Your task to perform on an android device: turn off priority inbox in the gmail app Image 0: 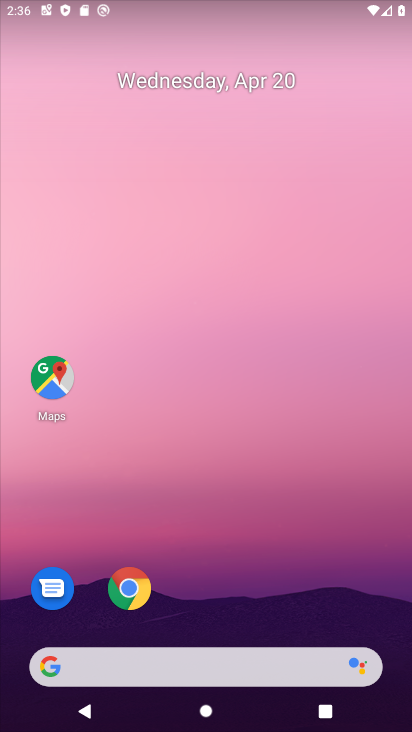
Step 0: drag from (242, 463) to (235, 70)
Your task to perform on an android device: turn off priority inbox in the gmail app Image 1: 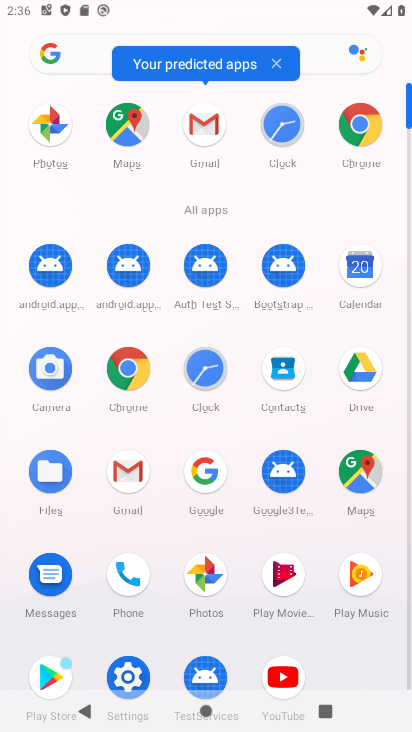
Step 1: click (202, 123)
Your task to perform on an android device: turn off priority inbox in the gmail app Image 2: 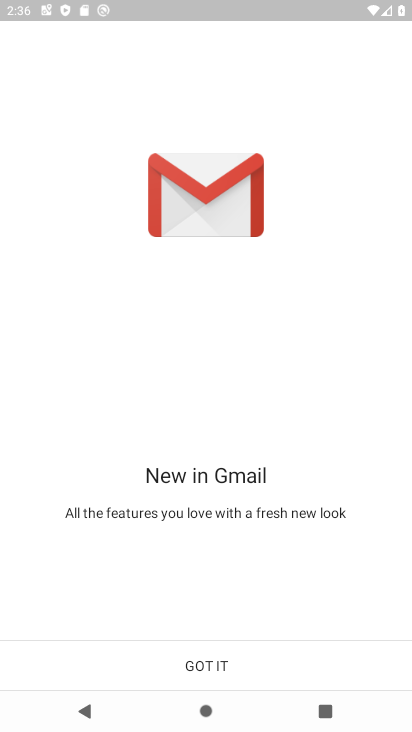
Step 2: click (216, 667)
Your task to perform on an android device: turn off priority inbox in the gmail app Image 3: 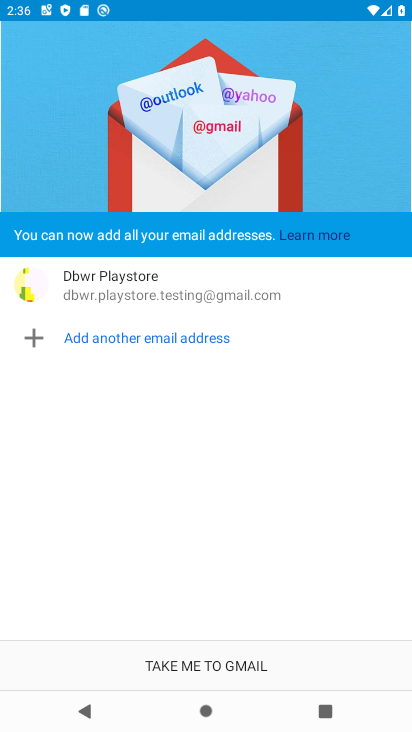
Step 3: click (216, 667)
Your task to perform on an android device: turn off priority inbox in the gmail app Image 4: 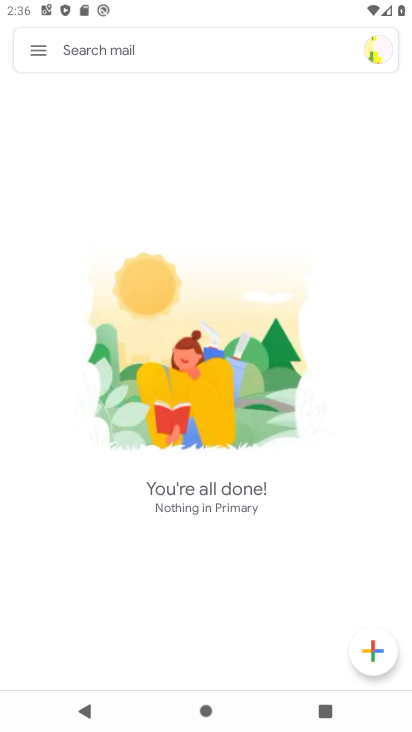
Step 4: click (32, 47)
Your task to perform on an android device: turn off priority inbox in the gmail app Image 5: 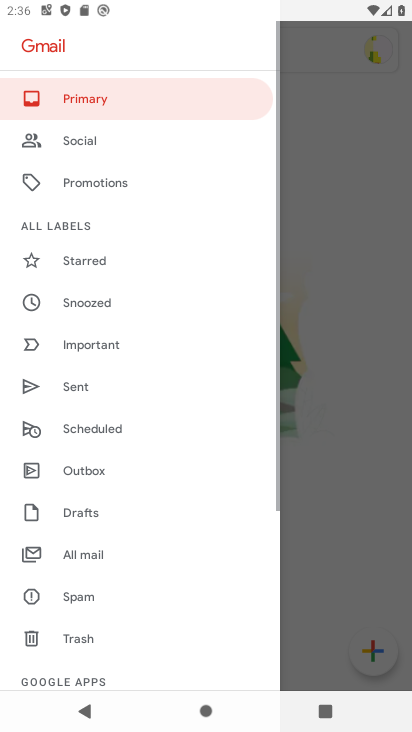
Step 5: drag from (89, 562) to (102, 280)
Your task to perform on an android device: turn off priority inbox in the gmail app Image 6: 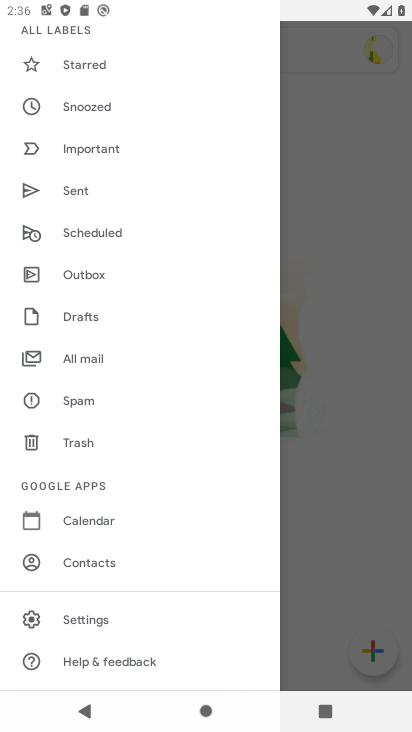
Step 6: click (88, 615)
Your task to perform on an android device: turn off priority inbox in the gmail app Image 7: 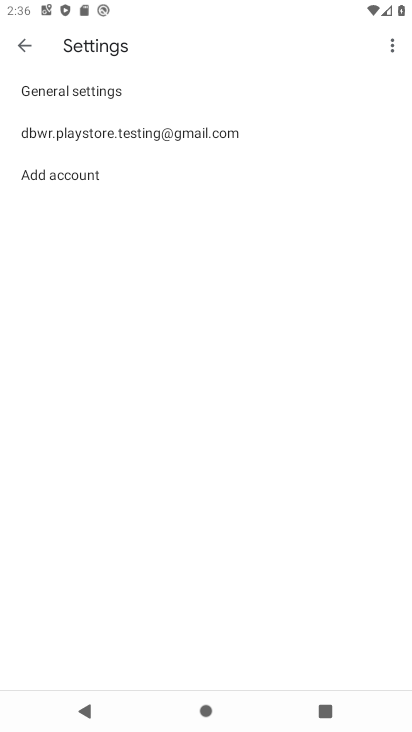
Step 7: click (65, 130)
Your task to perform on an android device: turn off priority inbox in the gmail app Image 8: 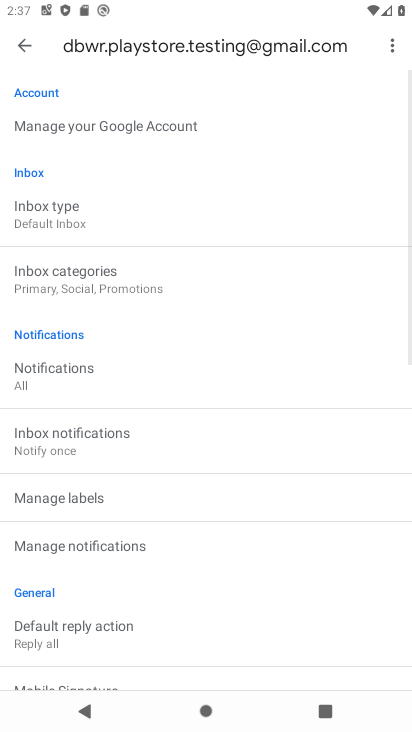
Step 8: drag from (150, 585) to (115, 254)
Your task to perform on an android device: turn off priority inbox in the gmail app Image 9: 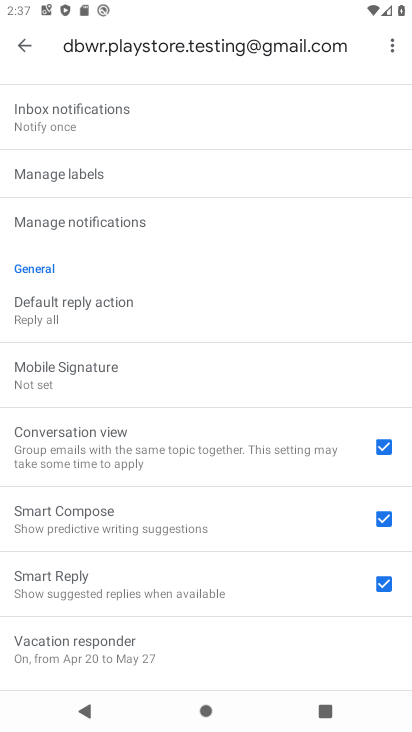
Step 9: drag from (125, 203) to (171, 598)
Your task to perform on an android device: turn off priority inbox in the gmail app Image 10: 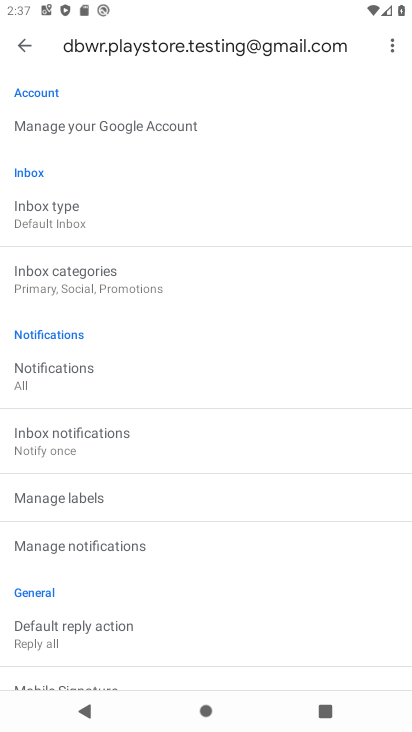
Step 10: click (75, 223)
Your task to perform on an android device: turn off priority inbox in the gmail app Image 11: 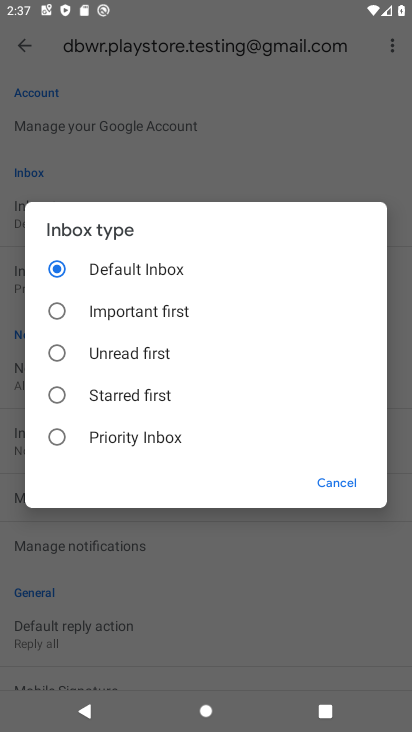
Step 11: task complete